Your task to perform on an android device: How much does the Samsung TV cost? Image 0: 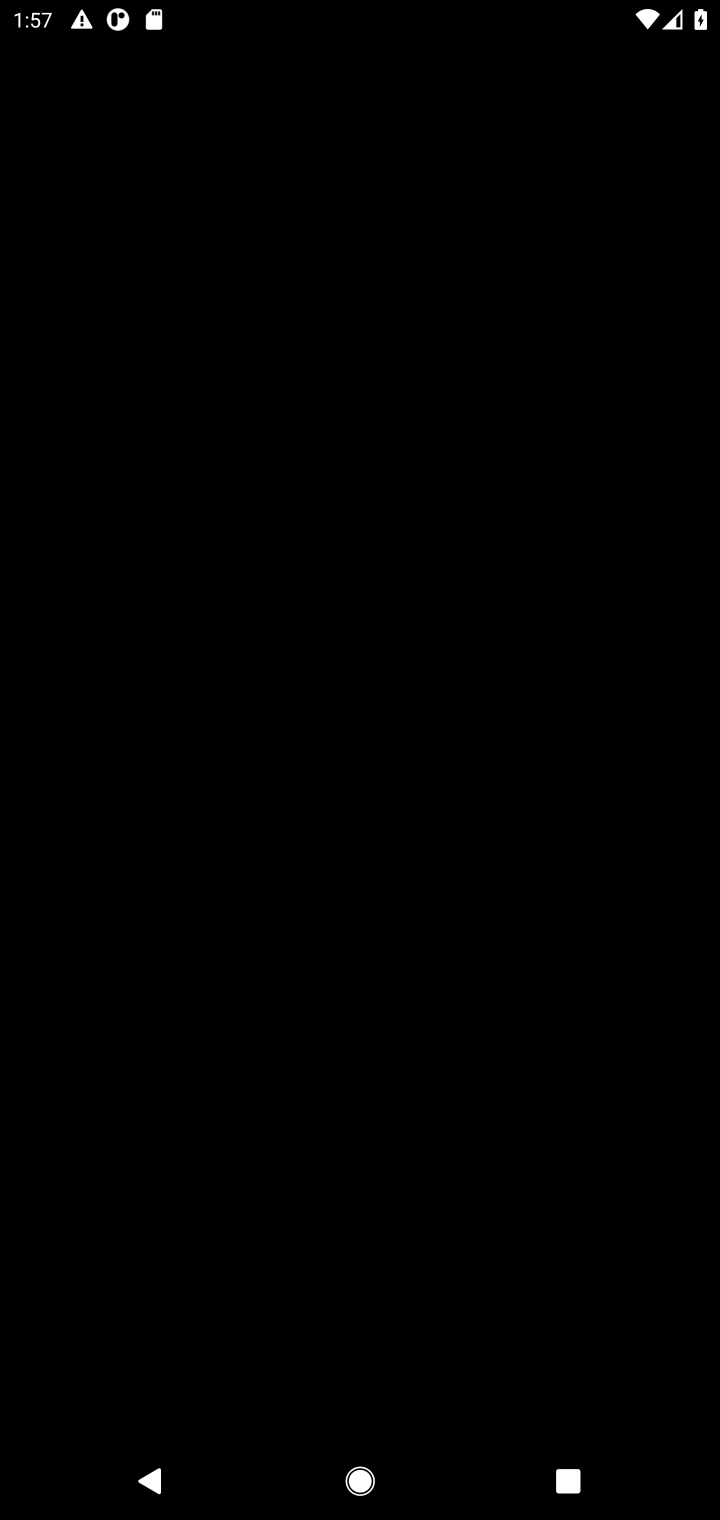
Step 0: press home button
Your task to perform on an android device: How much does the Samsung TV cost? Image 1: 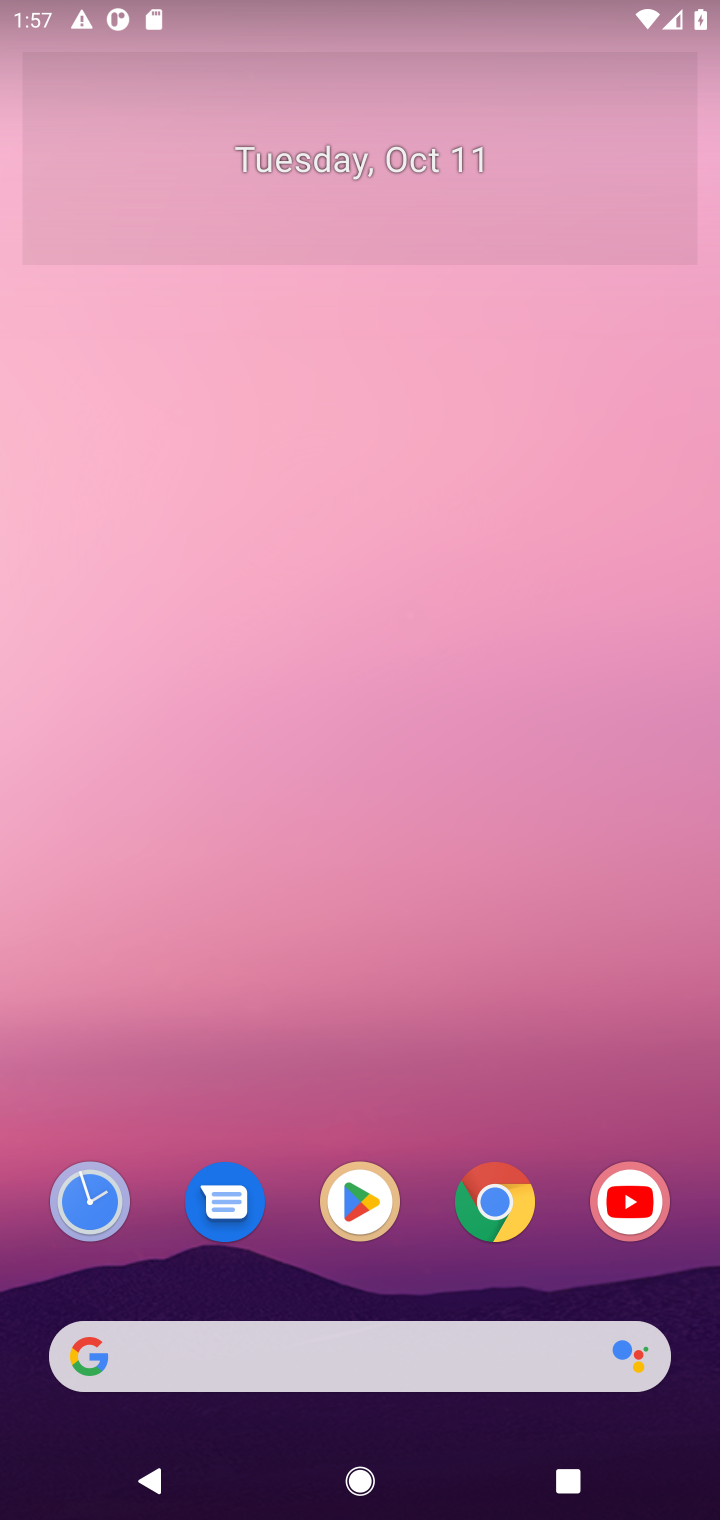
Step 1: click (504, 1203)
Your task to perform on an android device: How much does the Samsung TV cost? Image 2: 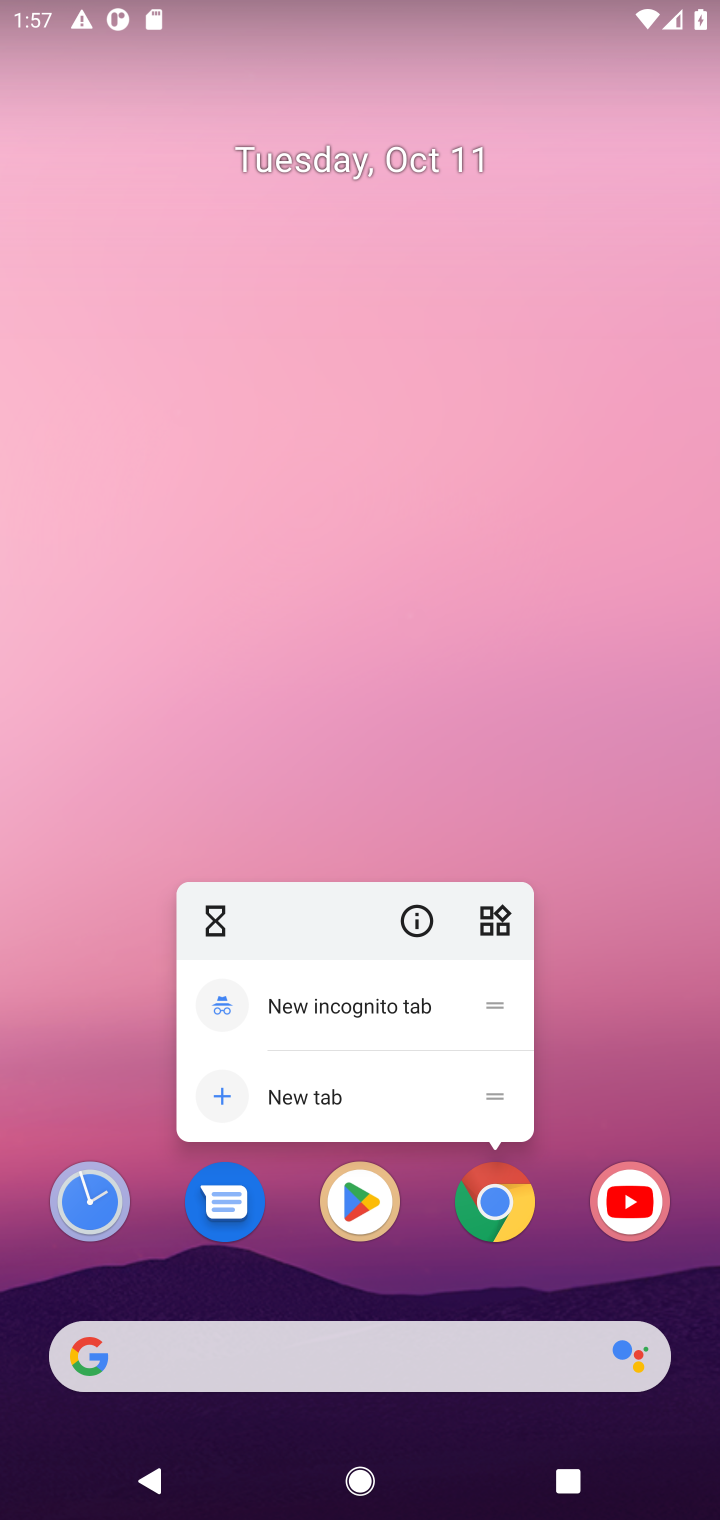
Step 2: click (487, 1203)
Your task to perform on an android device: How much does the Samsung TV cost? Image 3: 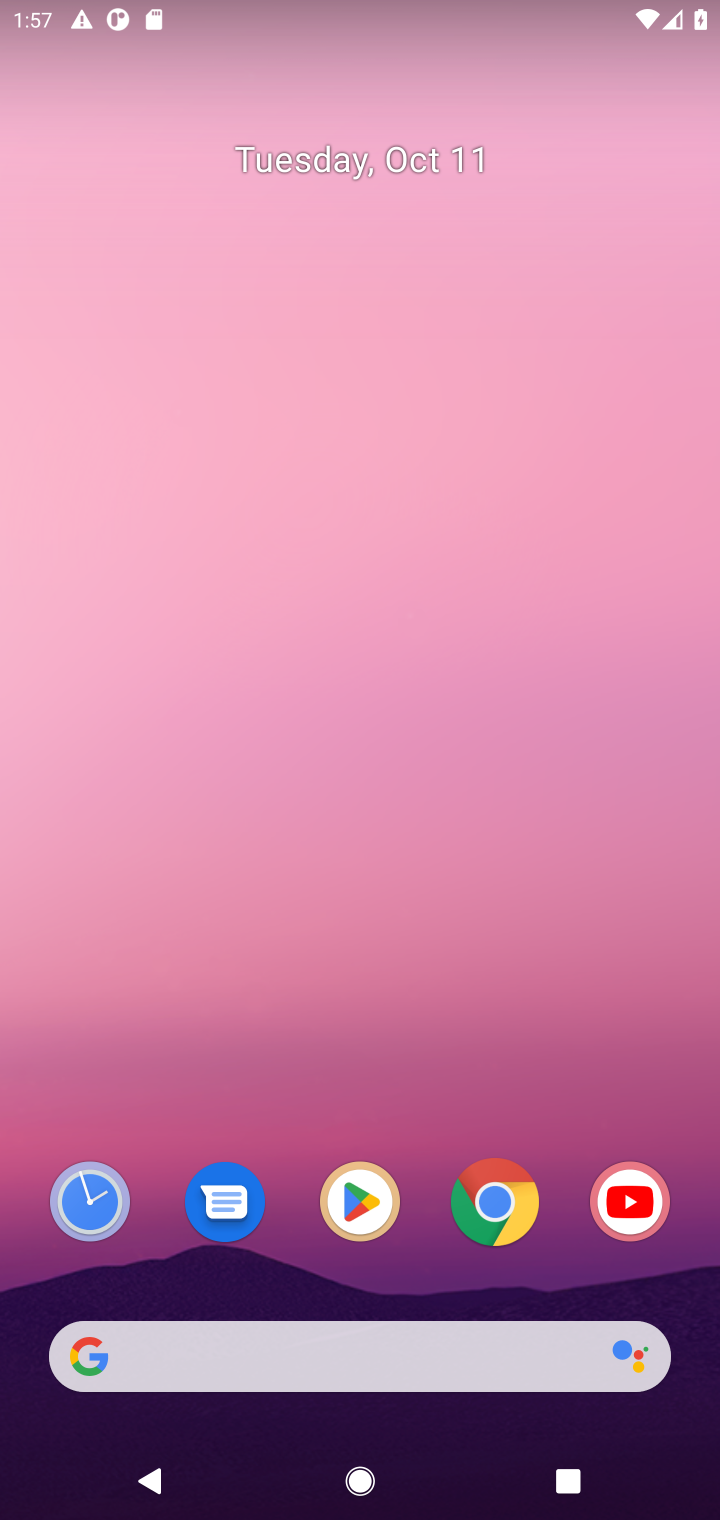
Step 3: click (487, 1215)
Your task to perform on an android device: How much does the Samsung TV cost? Image 4: 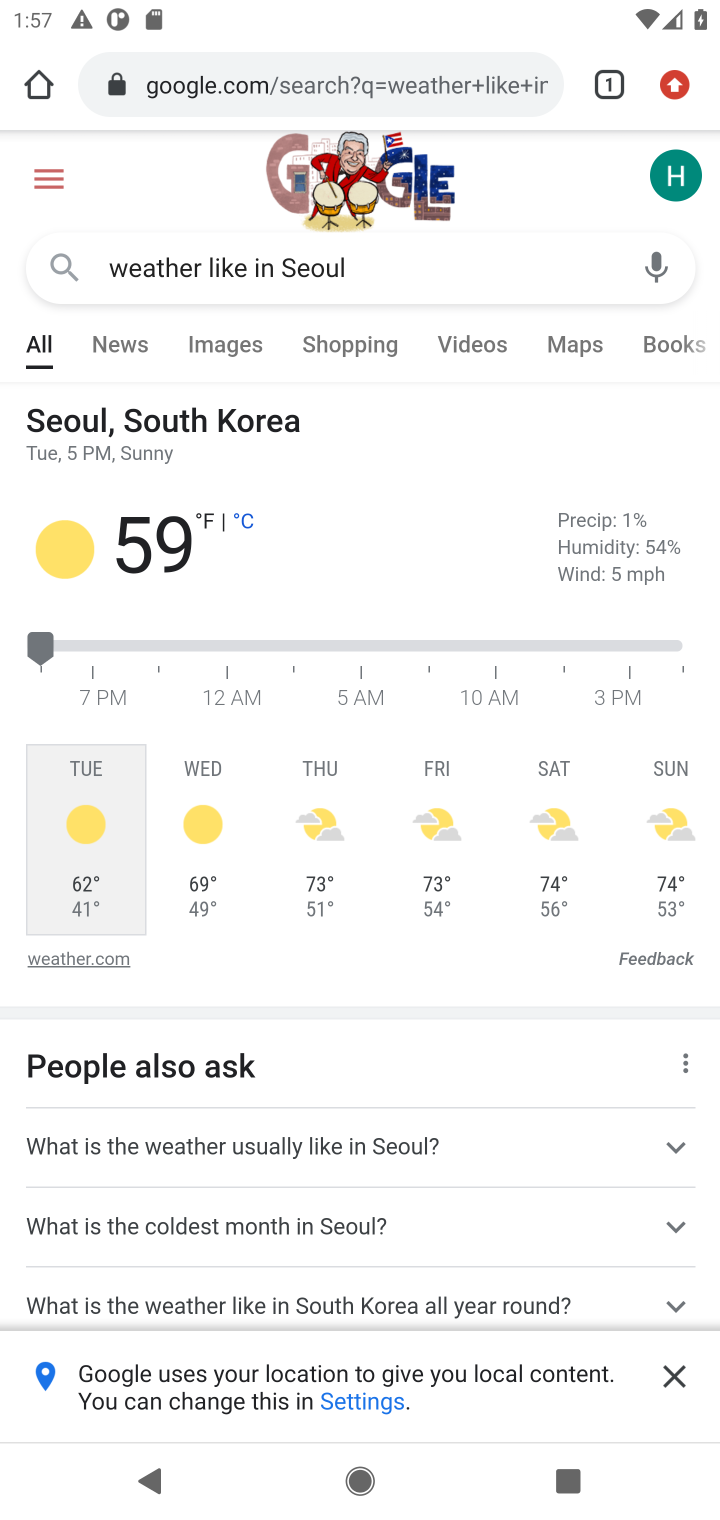
Step 4: click (479, 75)
Your task to perform on an android device: How much does the Samsung TV cost? Image 5: 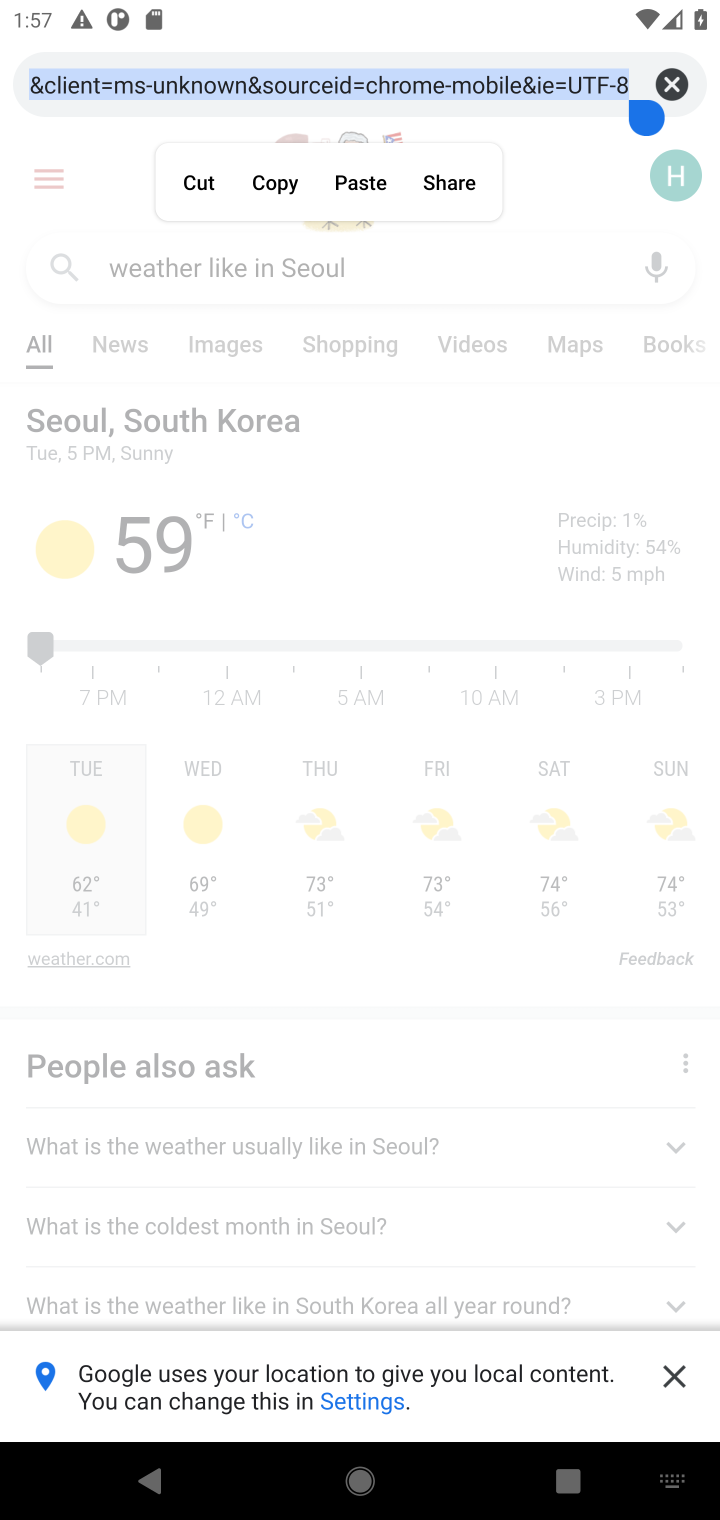
Step 5: click (671, 82)
Your task to perform on an android device: How much does the Samsung TV cost? Image 6: 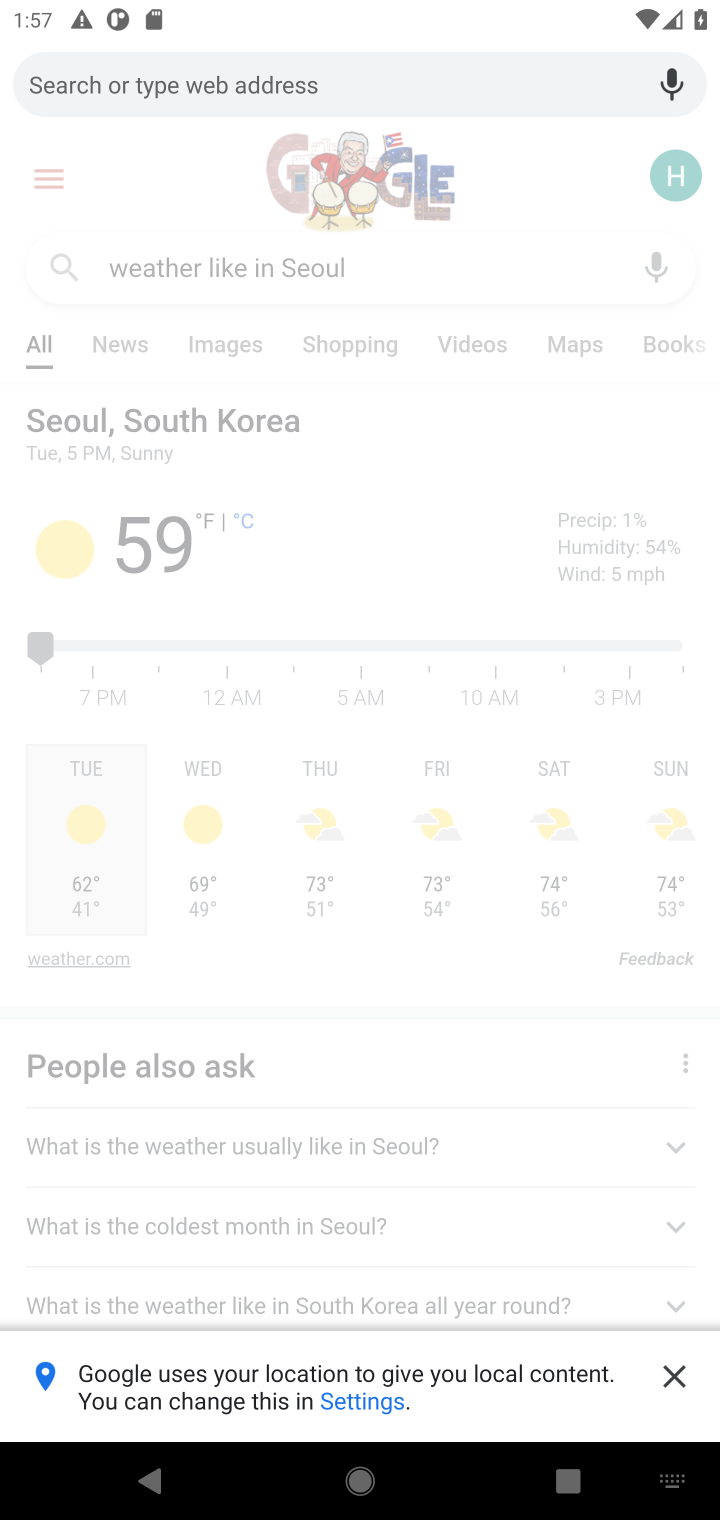
Step 6: press enter
Your task to perform on an android device: How much does the Samsung TV cost? Image 7: 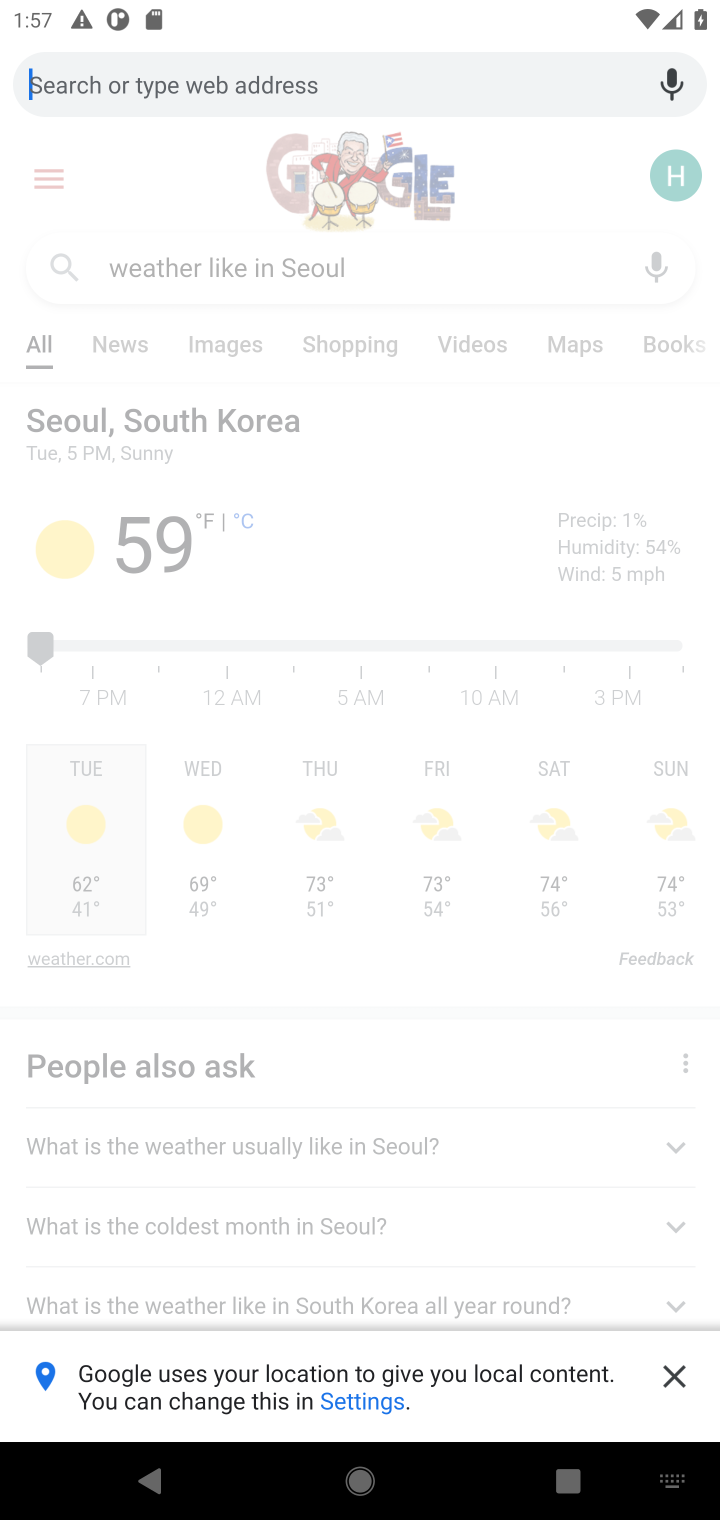
Step 7: type "How much does the Samsung TV cost"
Your task to perform on an android device: How much does the Samsung TV cost? Image 8: 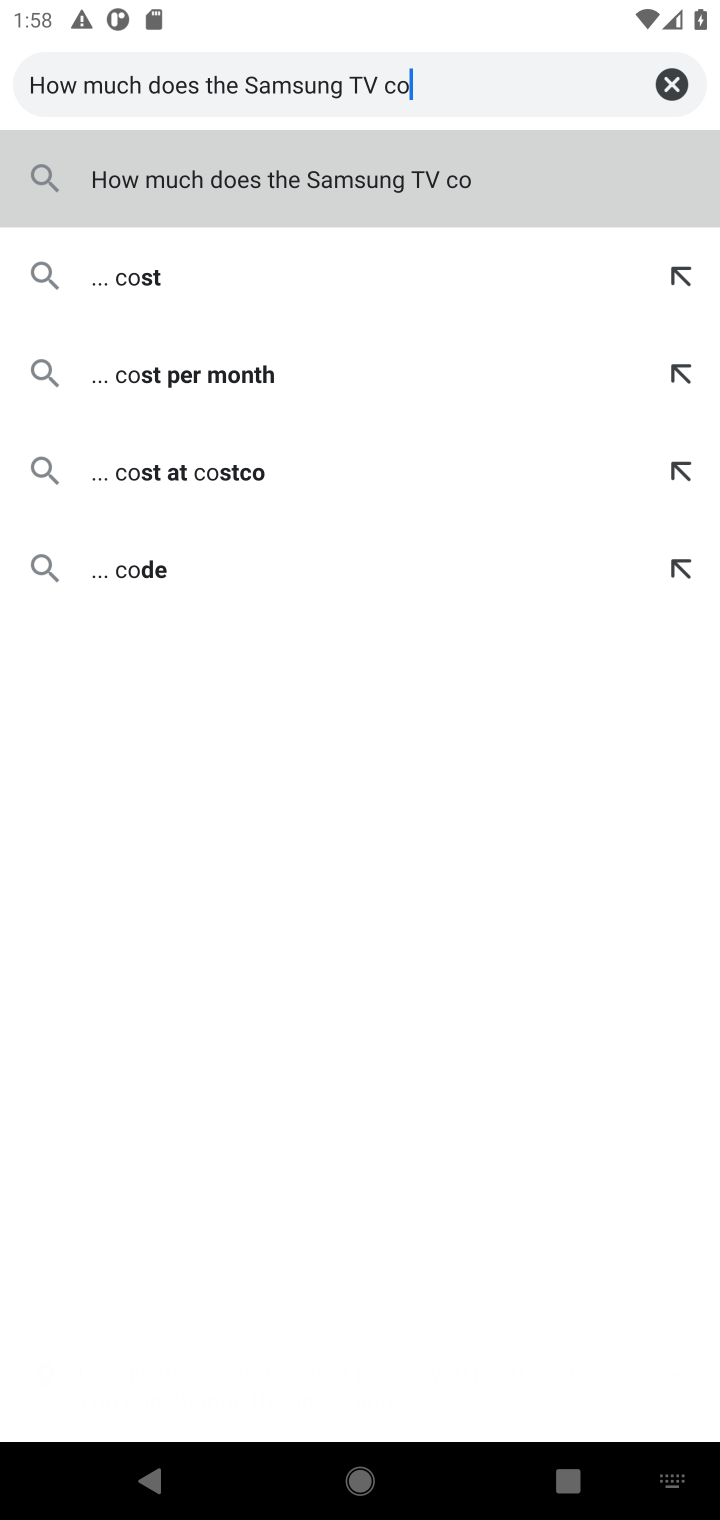
Step 8: click (298, 177)
Your task to perform on an android device: How much does the Samsung TV cost? Image 9: 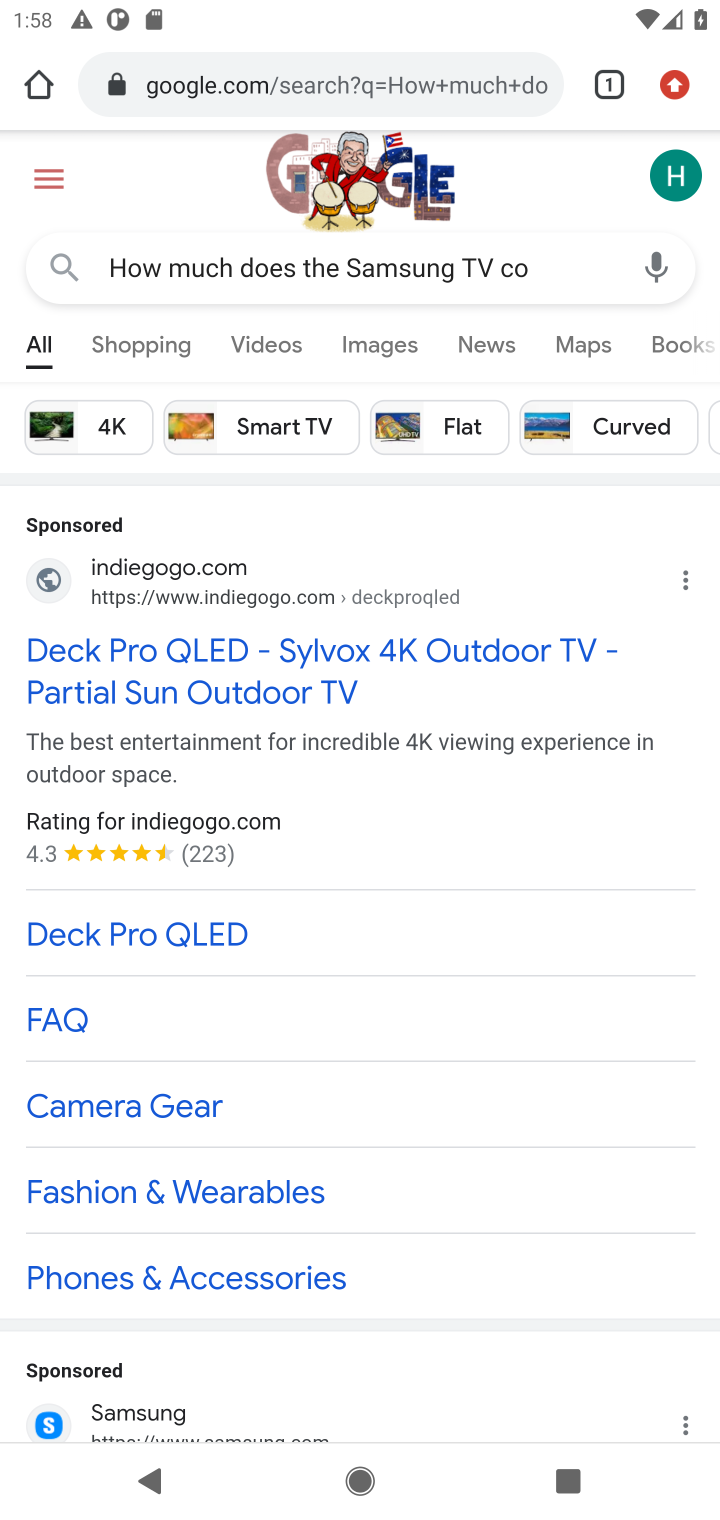
Step 9: drag from (348, 1246) to (560, 286)
Your task to perform on an android device: How much does the Samsung TV cost? Image 10: 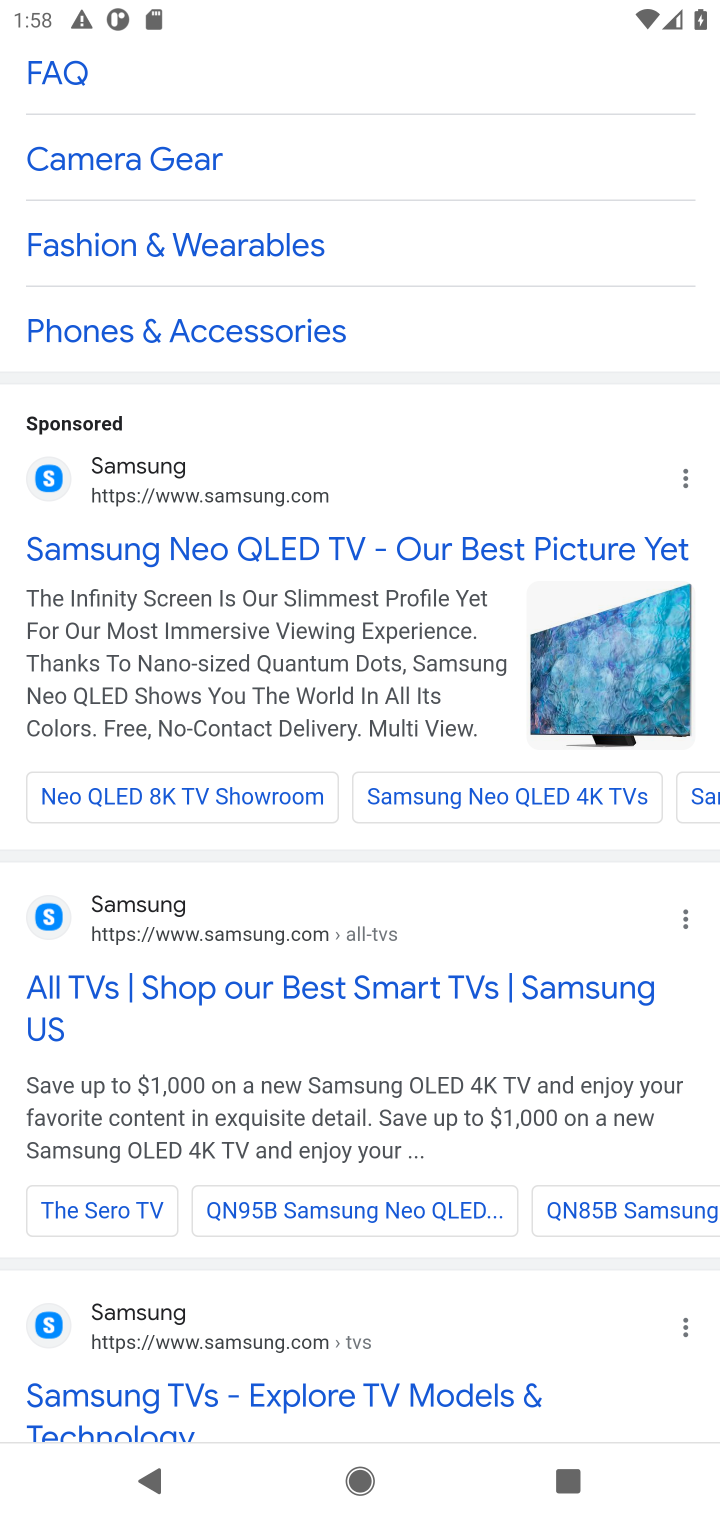
Step 10: drag from (409, 276) to (263, 1099)
Your task to perform on an android device: How much does the Samsung TV cost? Image 11: 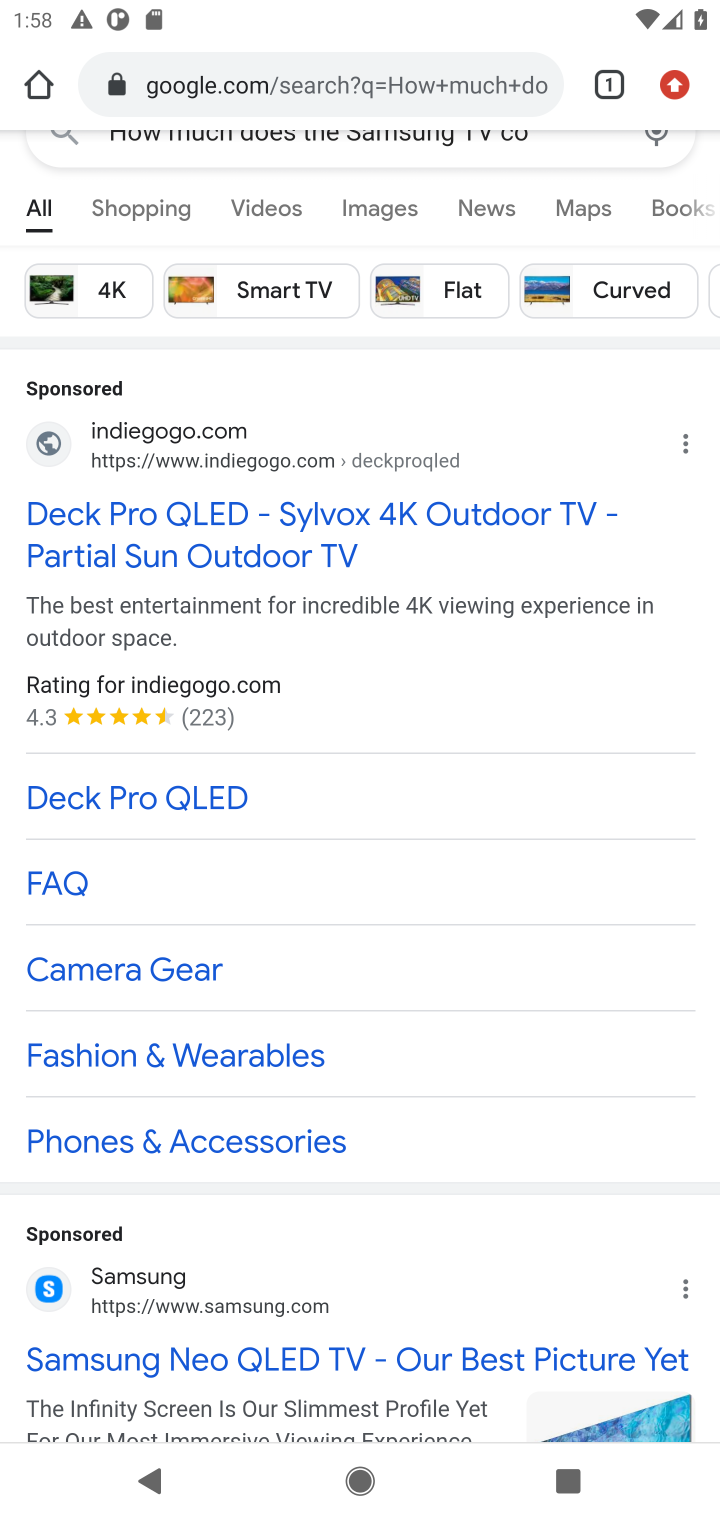
Step 11: click (332, 512)
Your task to perform on an android device: How much does the Samsung TV cost? Image 12: 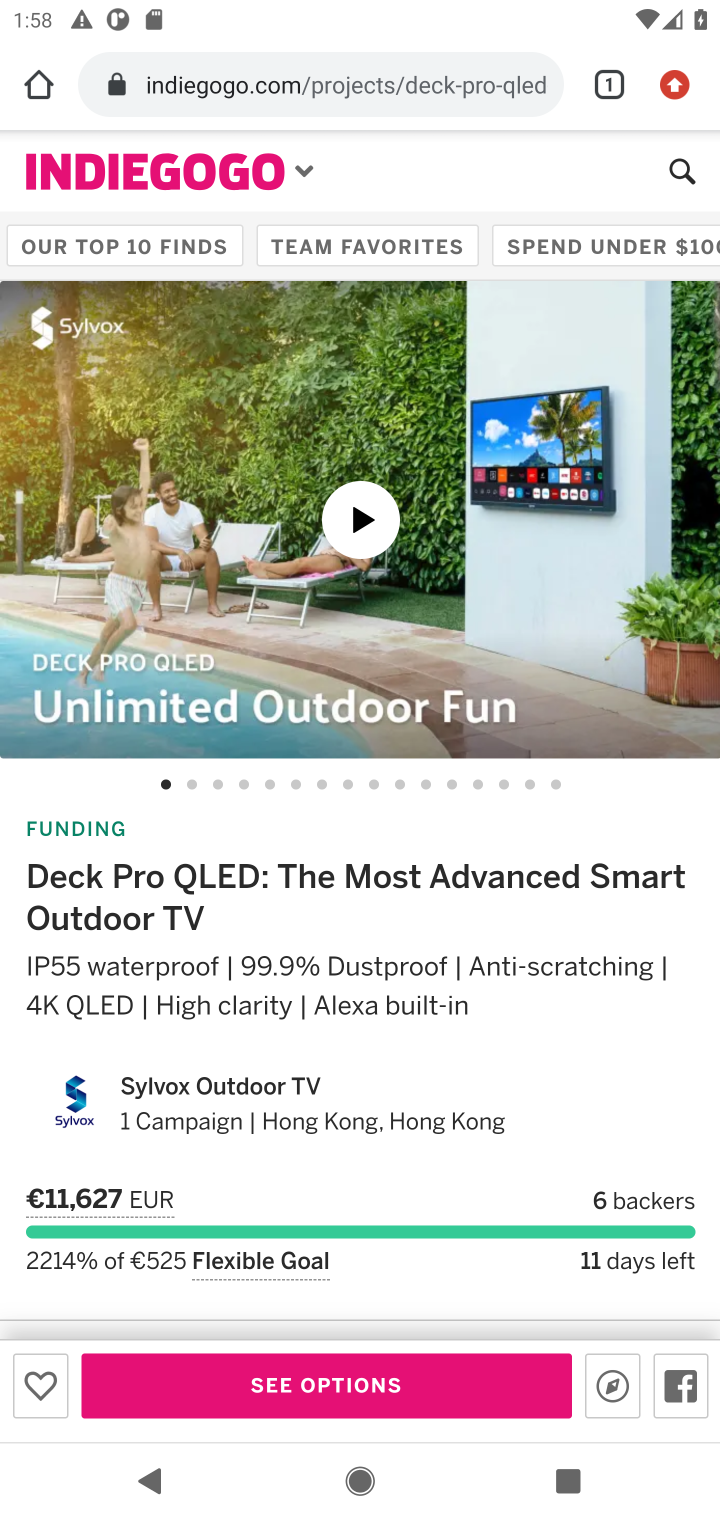
Step 12: task complete